Your task to perform on an android device: check out phone information Image 0: 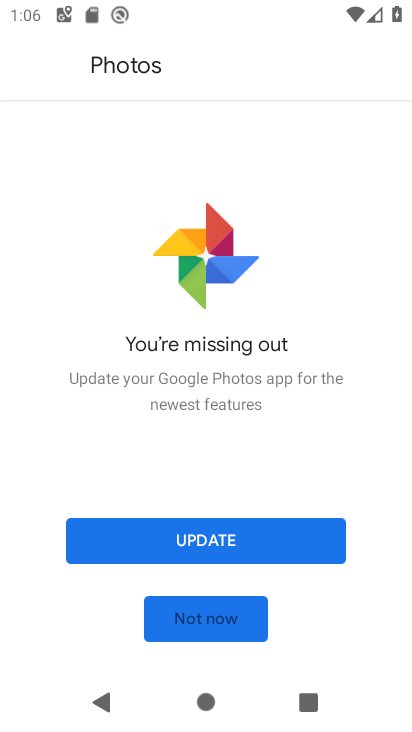
Step 0: press home button
Your task to perform on an android device: check out phone information Image 1: 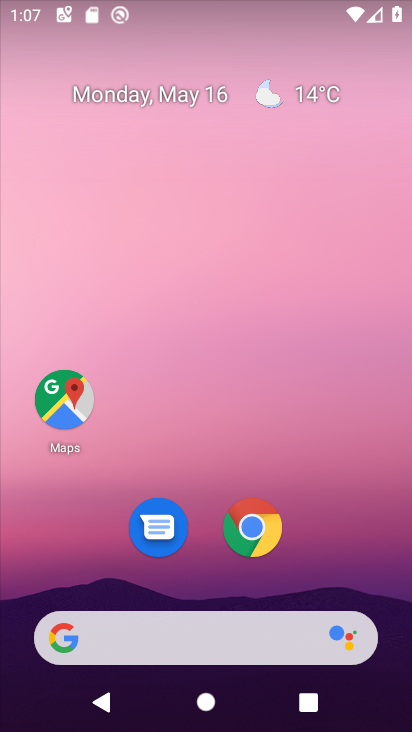
Step 1: drag from (193, 581) to (219, 2)
Your task to perform on an android device: check out phone information Image 2: 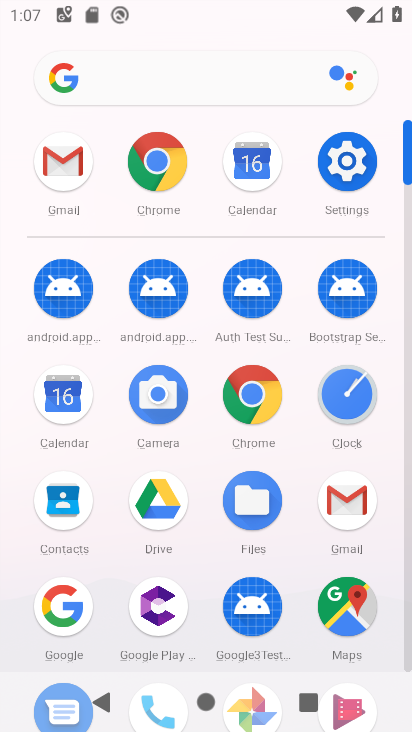
Step 2: click (344, 163)
Your task to perform on an android device: check out phone information Image 3: 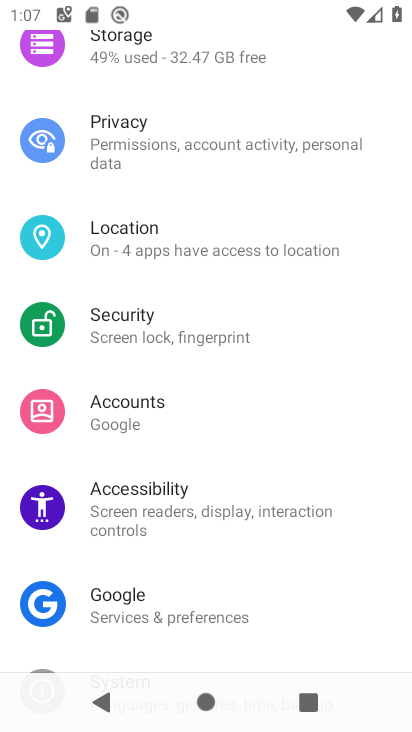
Step 3: drag from (160, 622) to (194, 12)
Your task to perform on an android device: check out phone information Image 4: 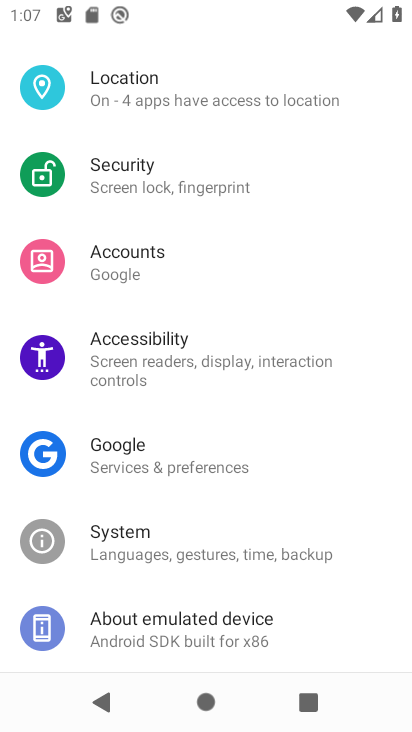
Step 4: click (169, 626)
Your task to perform on an android device: check out phone information Image 5: 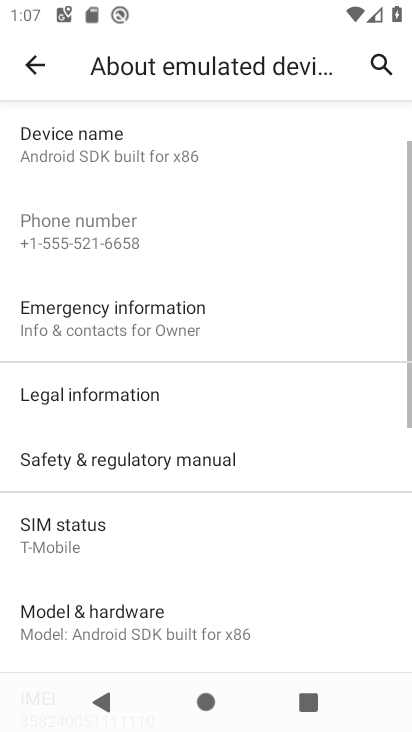
Step 5: task complete